Your task to perform on an android device: turn on location history Image 0: 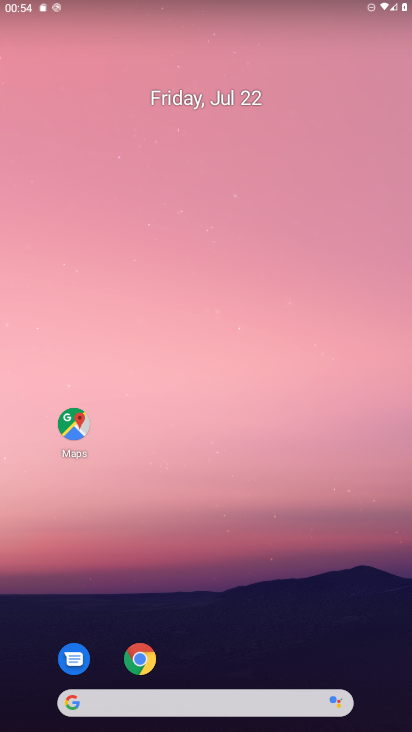
Step 0: drag from (235, 700) to (196, 179)
Your task to perform on an android device: turn on location history Image 1: 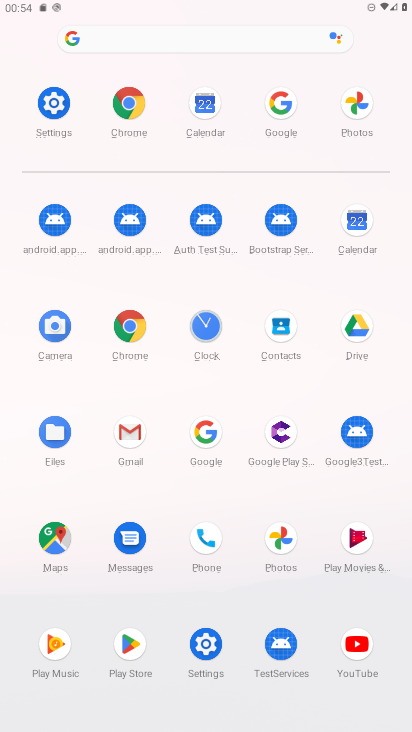
Step 1: click (54, 101)
Your task to perform on an android device: turn on location history Image 2: 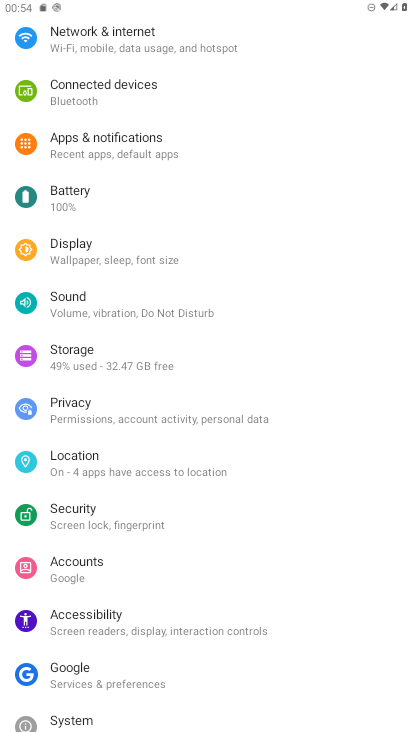
Step 2: click (79, 456)
Your task to perform on an android device: turn on location history Image 3: 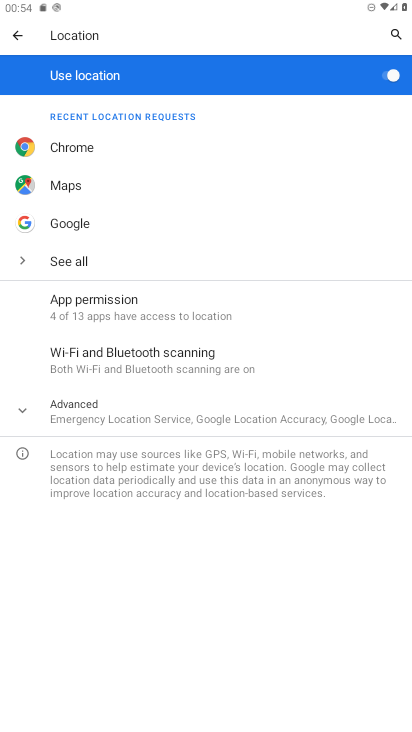
Step 3: click (227, 420)
Your task to perform on an android device: turn on location history Image 4: 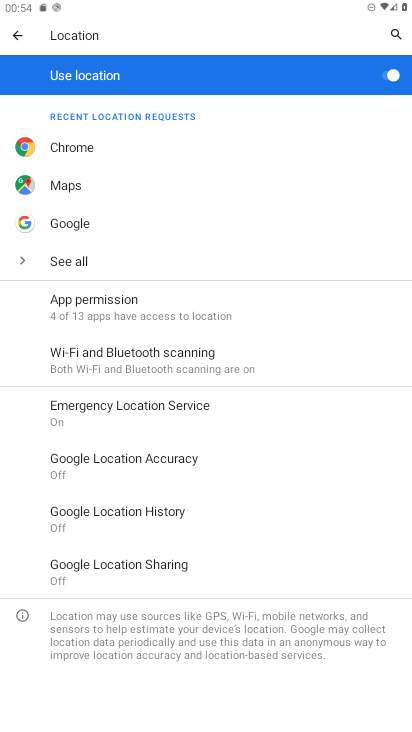
Step 4: click (149, 514)
Your task to perform on an android device: turn on location history Image 5: 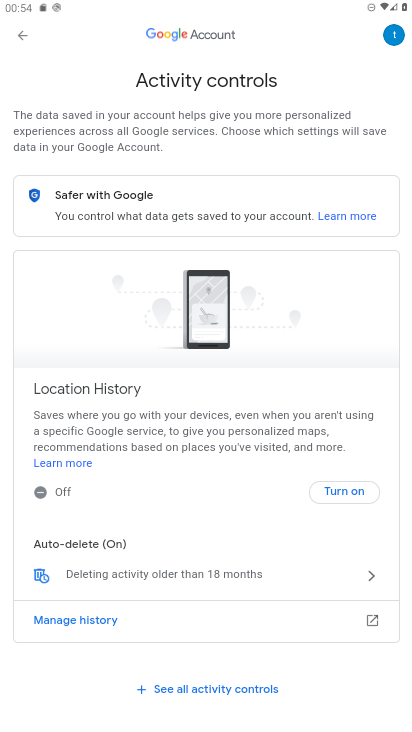
Step 5: click (342, 490)
Your task to perform on an android device: turn on location history Image 6: 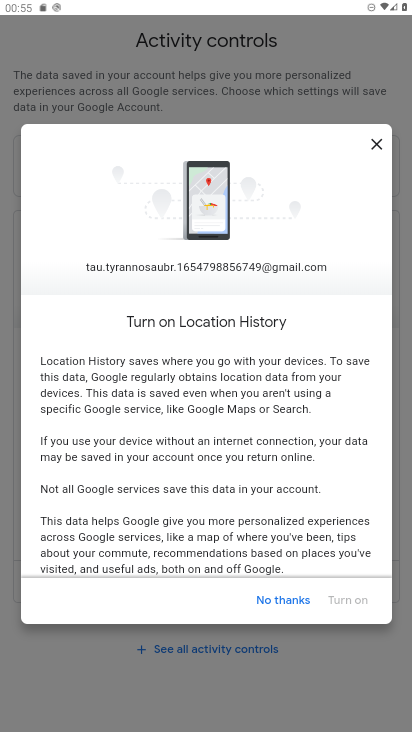
Step 6: drag from (324, 518) to (340, 242)
Your task to perform on an android device: turn on location history Image 7: 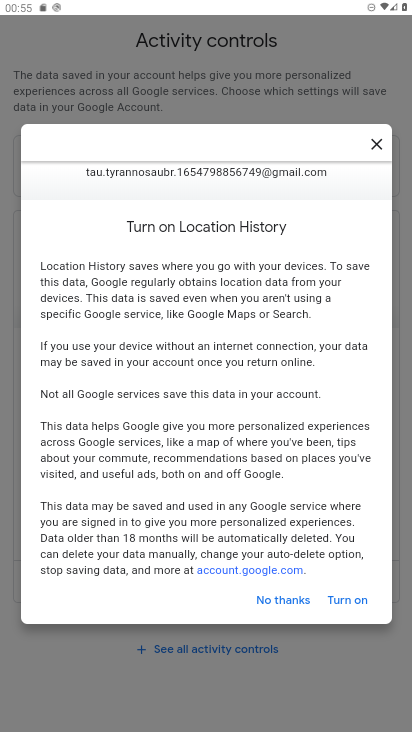
Step 7: click (344, 593)
Your task to perform on an android device: turn on location history Image 8: 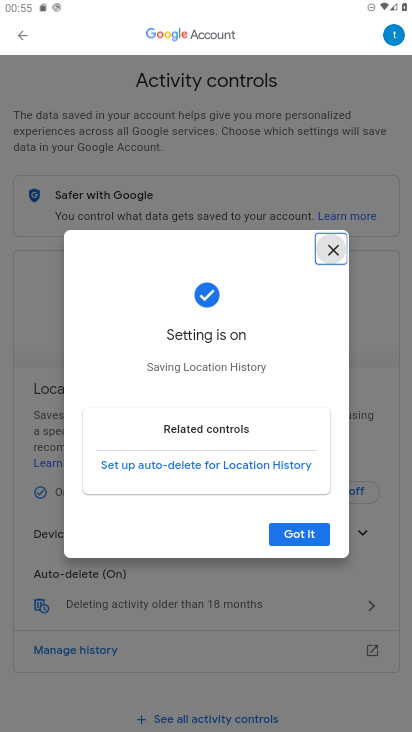
Step 8: click (298, 539)
Your task to perform on an android device: turn on location history Image 9: 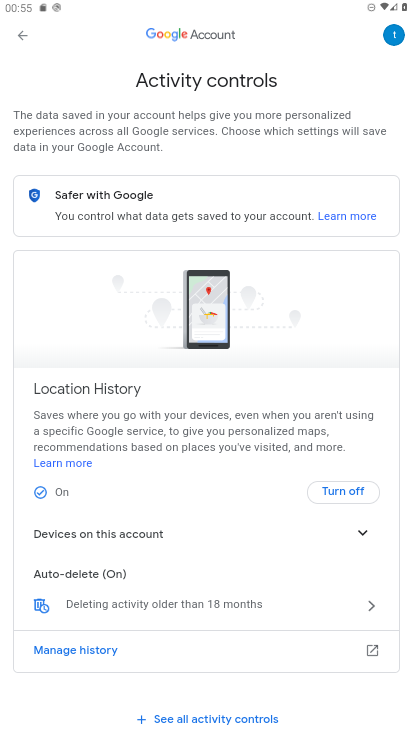
Step 9: task complete